Your task to perform on an android device: check out phone information Image 0: 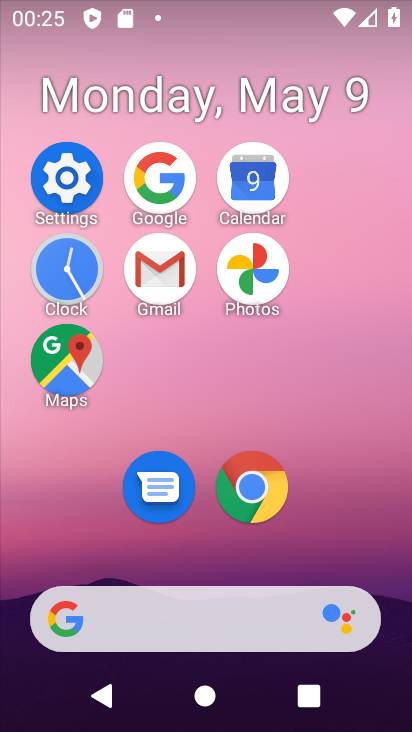
Step 0: click (95, 186)
Your task to perform on an android device: check out phone information Image 1: 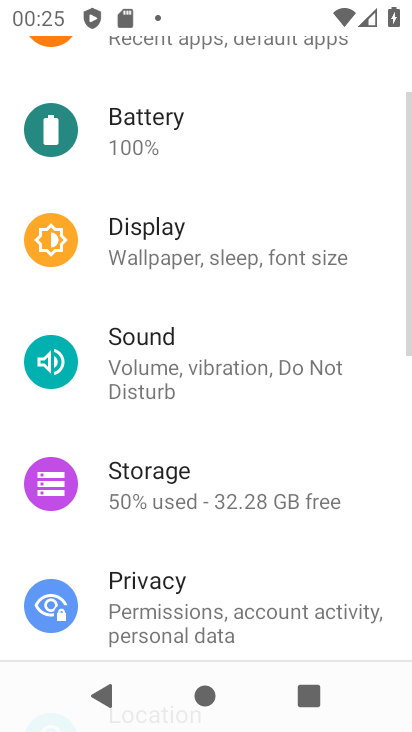
Step 1: drag from (304, 611) to (350, 226)
Your task to perform on an android device: check out phone information Image 2: 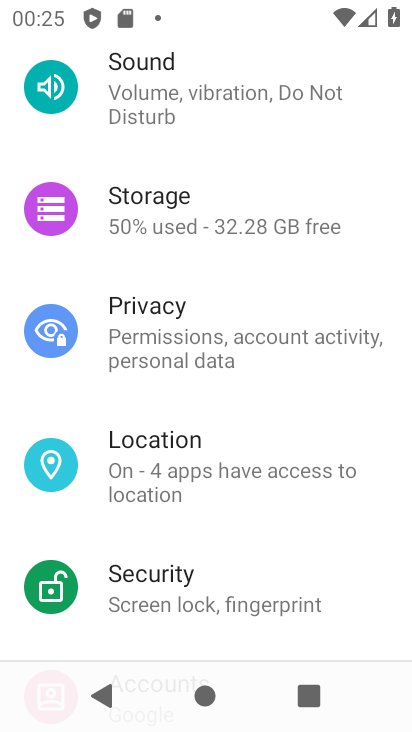
Step 2: drag from (290, 597) to (273, 238)
Your task to perform on an android device: check out phone information Image 3: 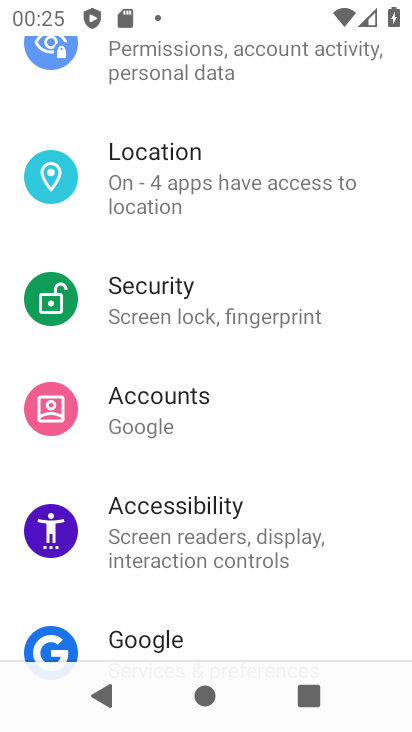
Step 3: drag from (267, 605) to (266, 209)
Your task to perform on an android device: check out phone information Image 4: 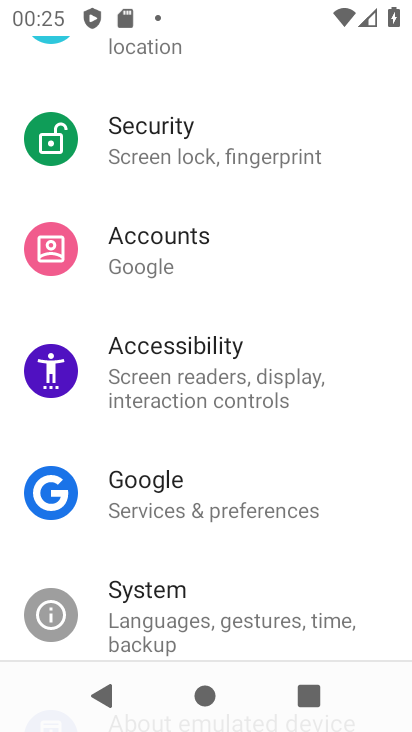
Step 4: drag from (272, 495) to (276, 225)
Your task to perform on an android device: check out phone information Image 5: 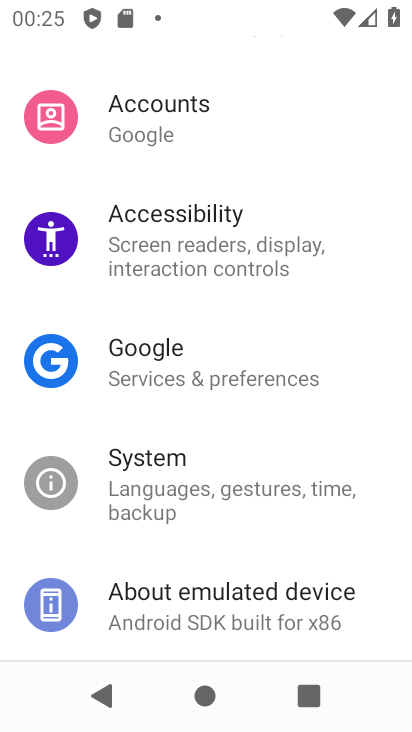
Step 5: click (252, 585)
Your task to perform on an android device: check out phone information Image 6: 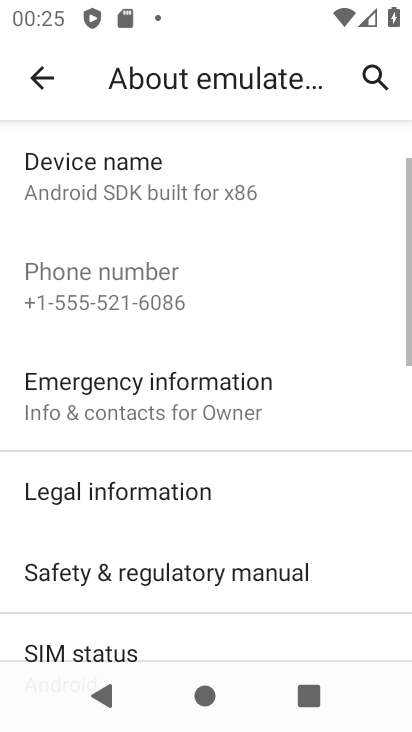
Step 6: drag from (246, 508) to (260, 139)
Your task to perform on an android device: check out phone information Image 7: 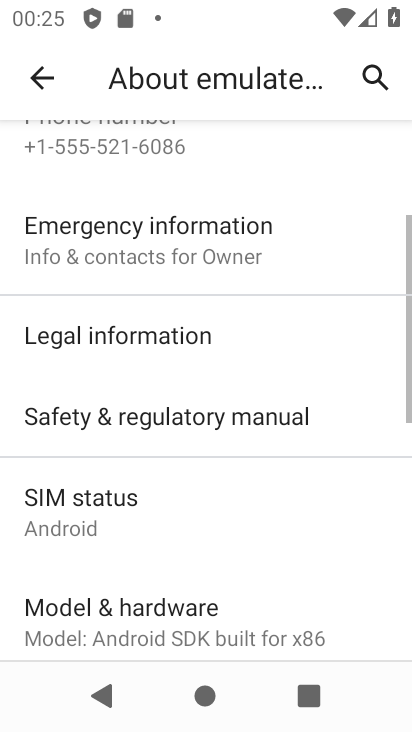
Step 7: drag from (228, 595) to (253, 295)
Your task to perform on an android device: check out phone information Image 8: 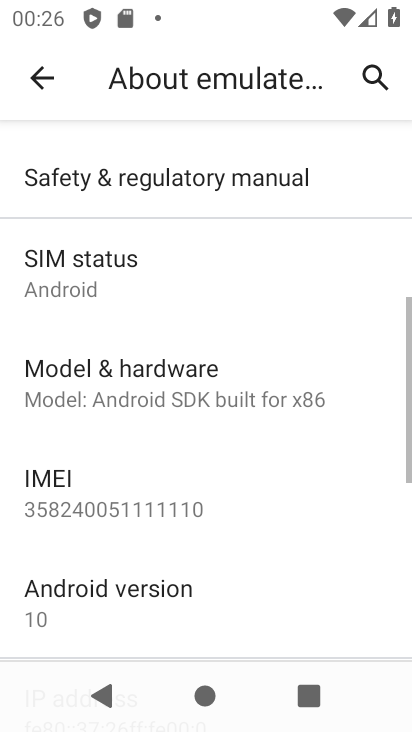
Step 8: drag from (237, 467) to (250, 320)
Your task to perform on an android device: check out phone information Image 9: 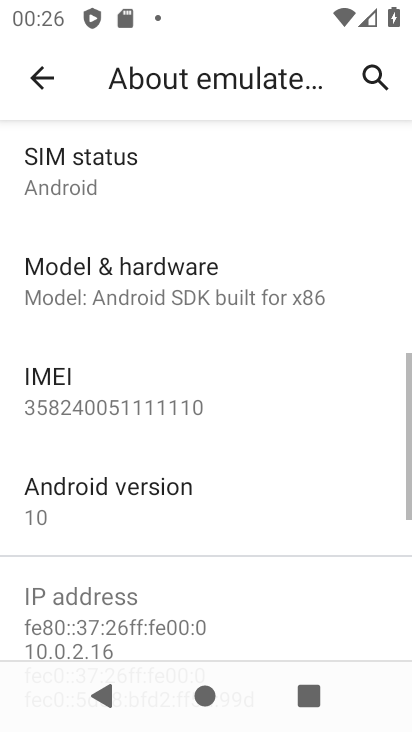
Step 9: drag from (278, 481) to (301, 234)
Your task to perform on an android device: check out phone information Image 10: 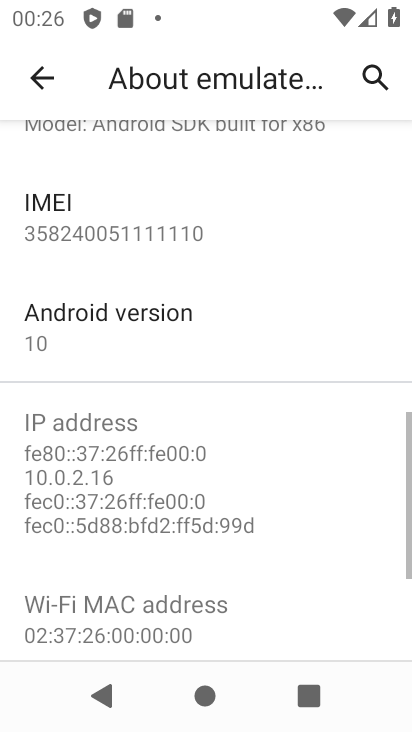
Step 10: click (230, 127)
Your task to perform on an android device: check out phone information Image 11: 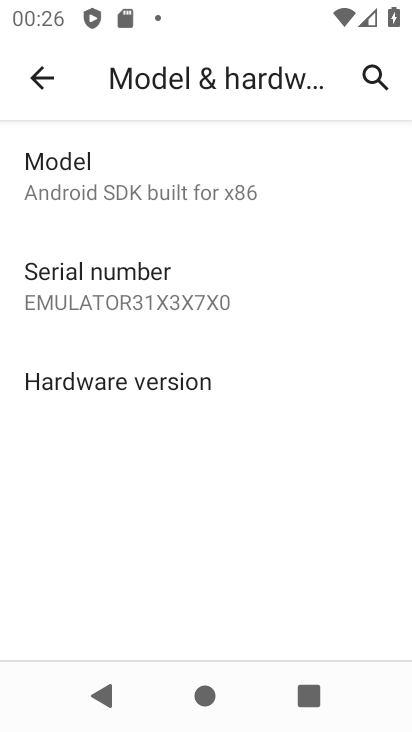
Step 11: task complete